Your task to perform on an android device: Go to accessibility settings Image 0: 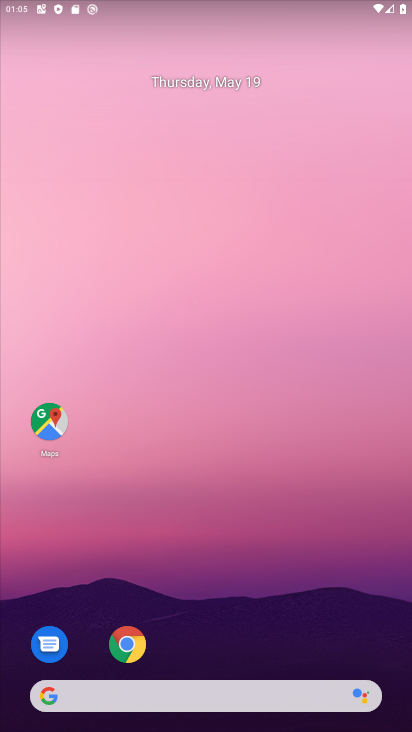
Step 0: drag from (291, 612) to (317, 265)
Your task to perform on an android device: Go to accessibility settings Image 1: 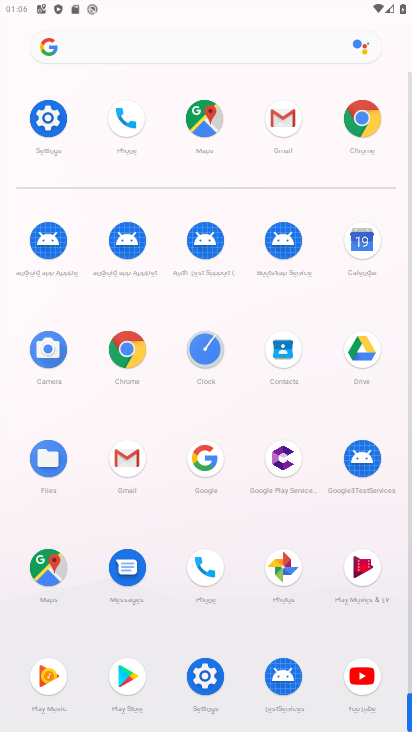
Step 1: click (217, 676)
Your task to perform on an android device: Go to accessibility settings Image 2: 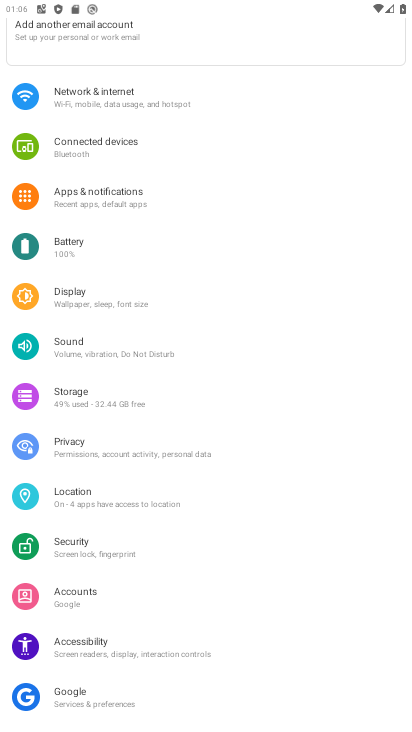
Step 2: click (183, 644)
Your task to perform on an android device: Go to accessibility settings Image 3: 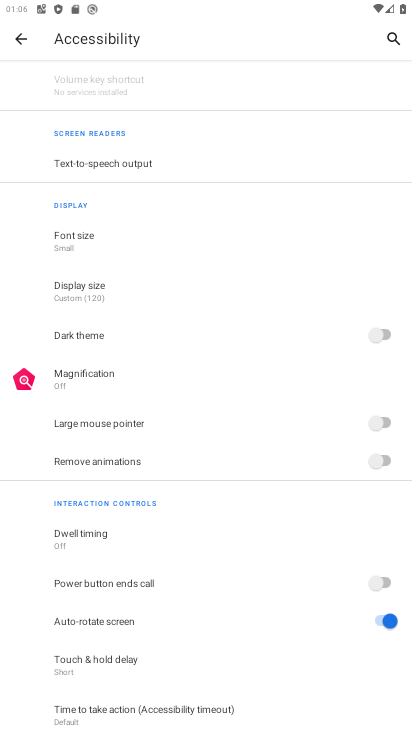
Step 3: task complete